Your task to perform on an android device: Open the stopwatch Image 0: 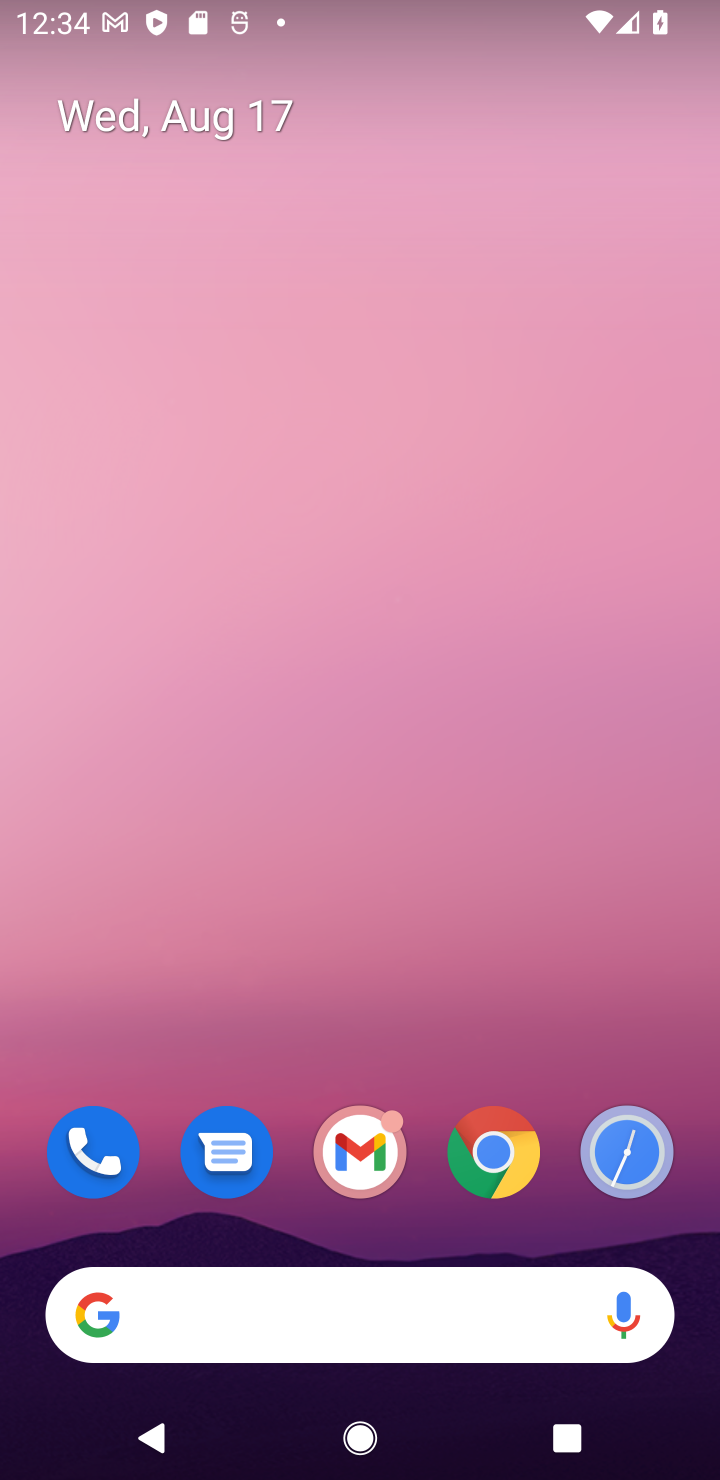
Step 0: drag from (558, 1219) to (310, 108)
Your task to perform on an android device: Open the stopwatch Image 1: 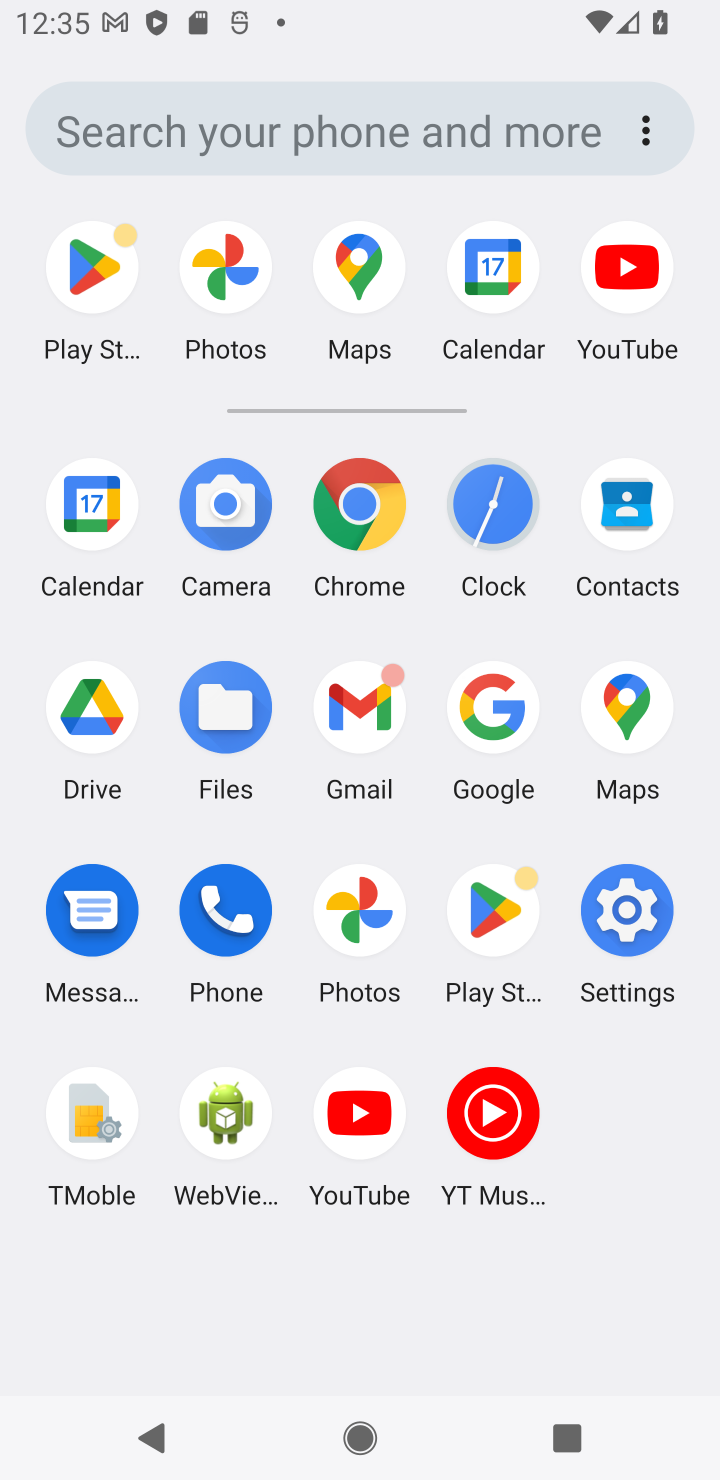
Step 1: click (486, 503)
Your task to perform on an android device: Open the stopwatch Image 2: 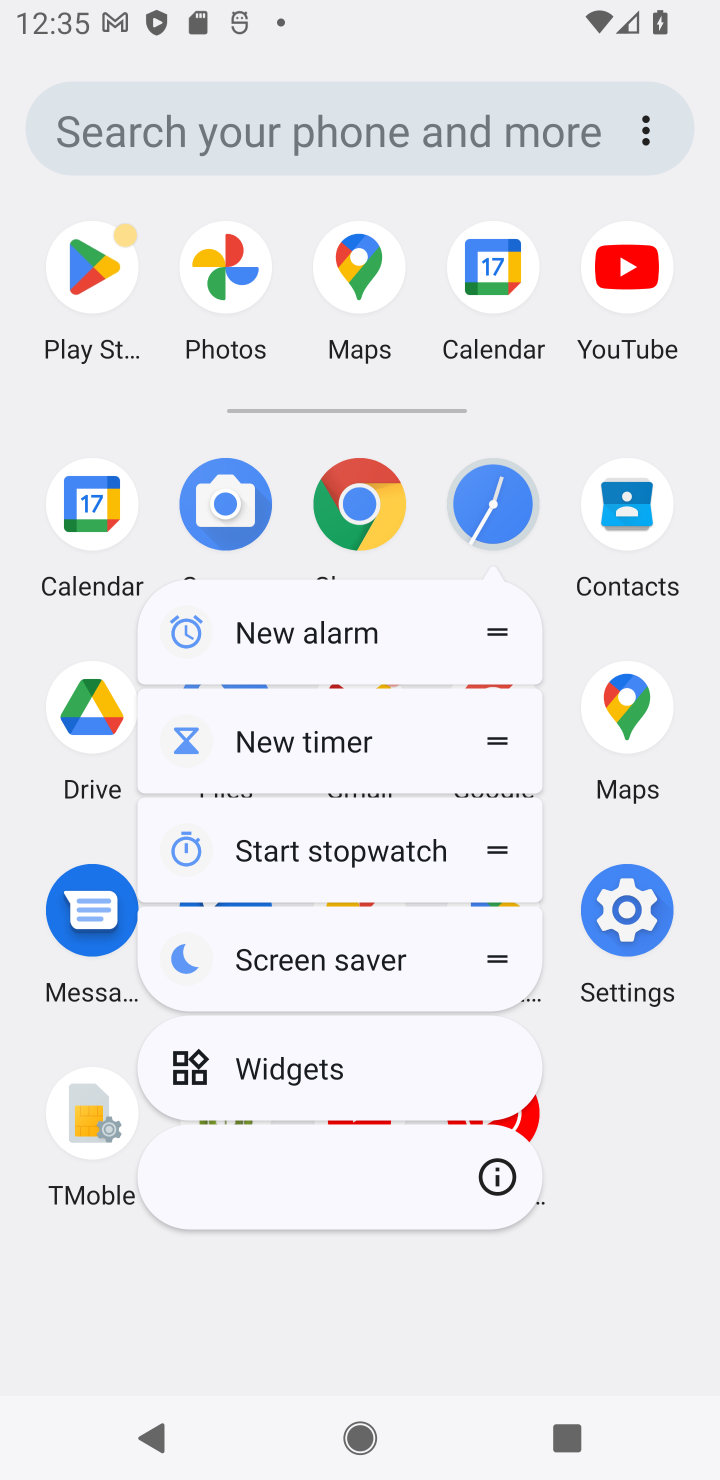
Step 2: click (486, 503)
Your task to perform on an android device: Open the stopwatch Image 3: 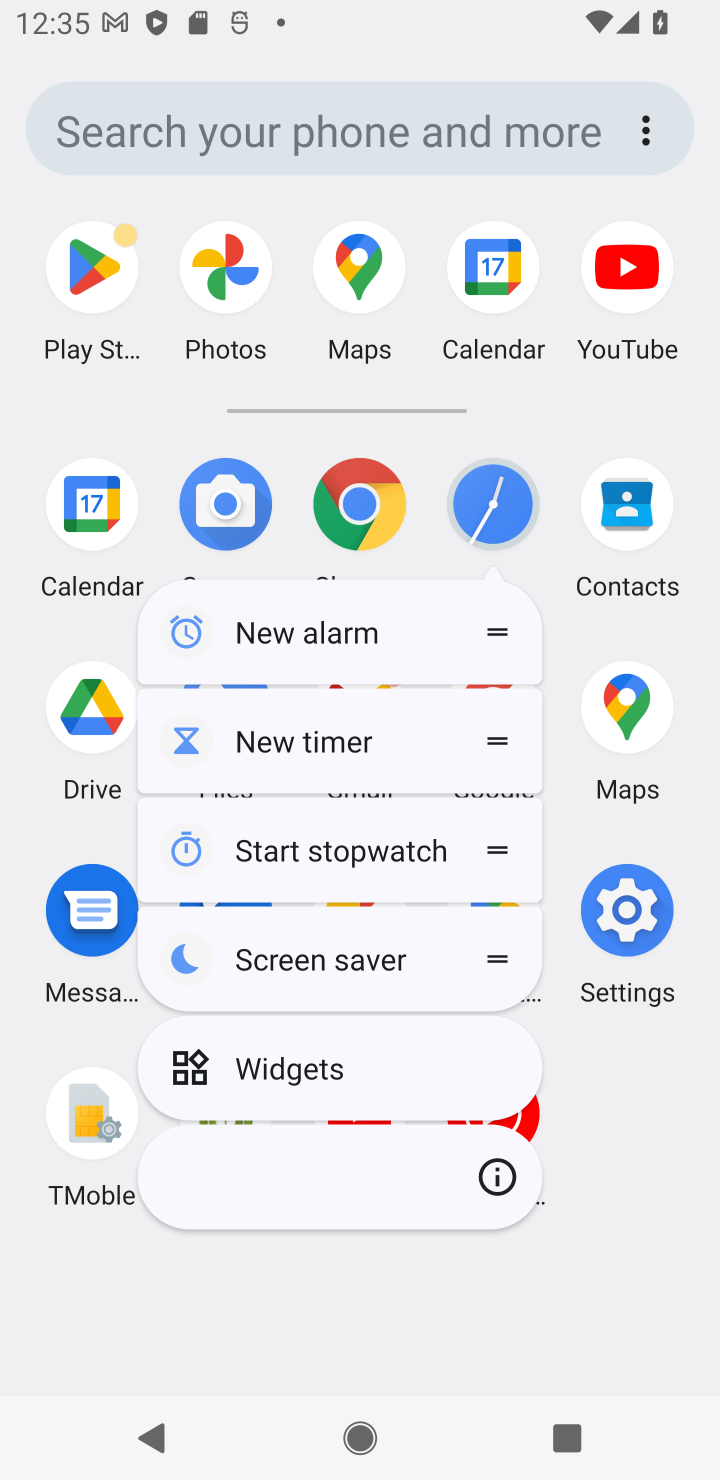
Step 3: click (486, 503)
Your task to perform on an android device: Open the stopwatch Image 4: 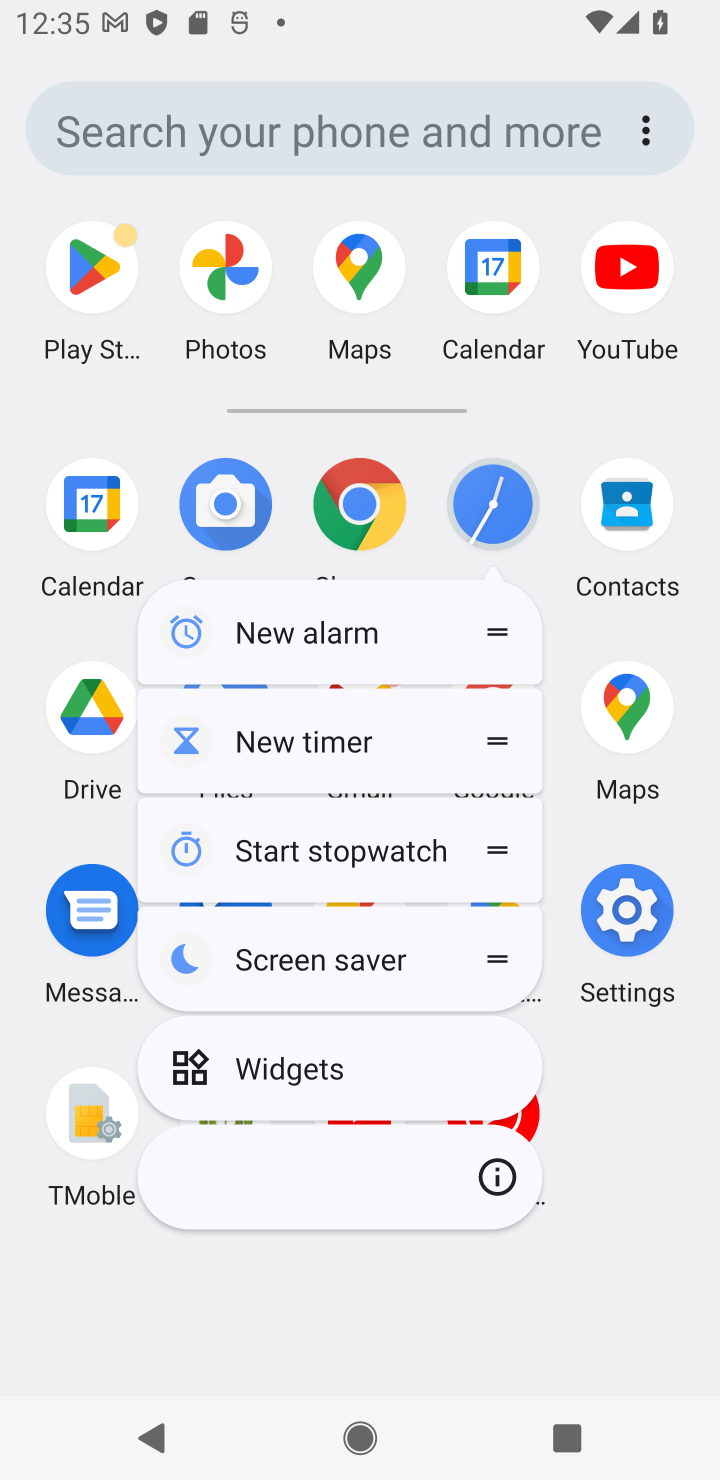
Step 4: click (486, 503)
Your task to perform on an android device: Open the stopwatch Image 5: 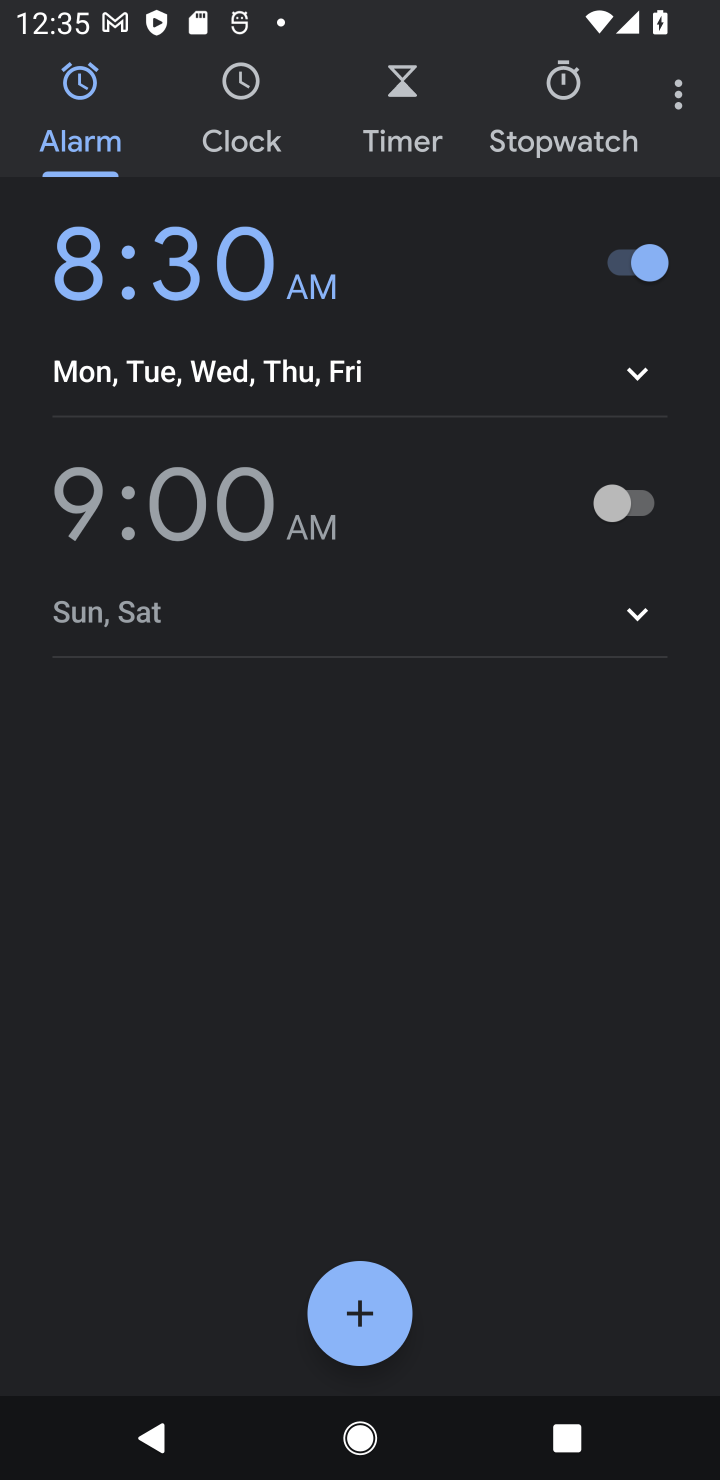
Step 5: click (563, 92)
Your task to perform on an android device: Open the stopwatch Image 6: 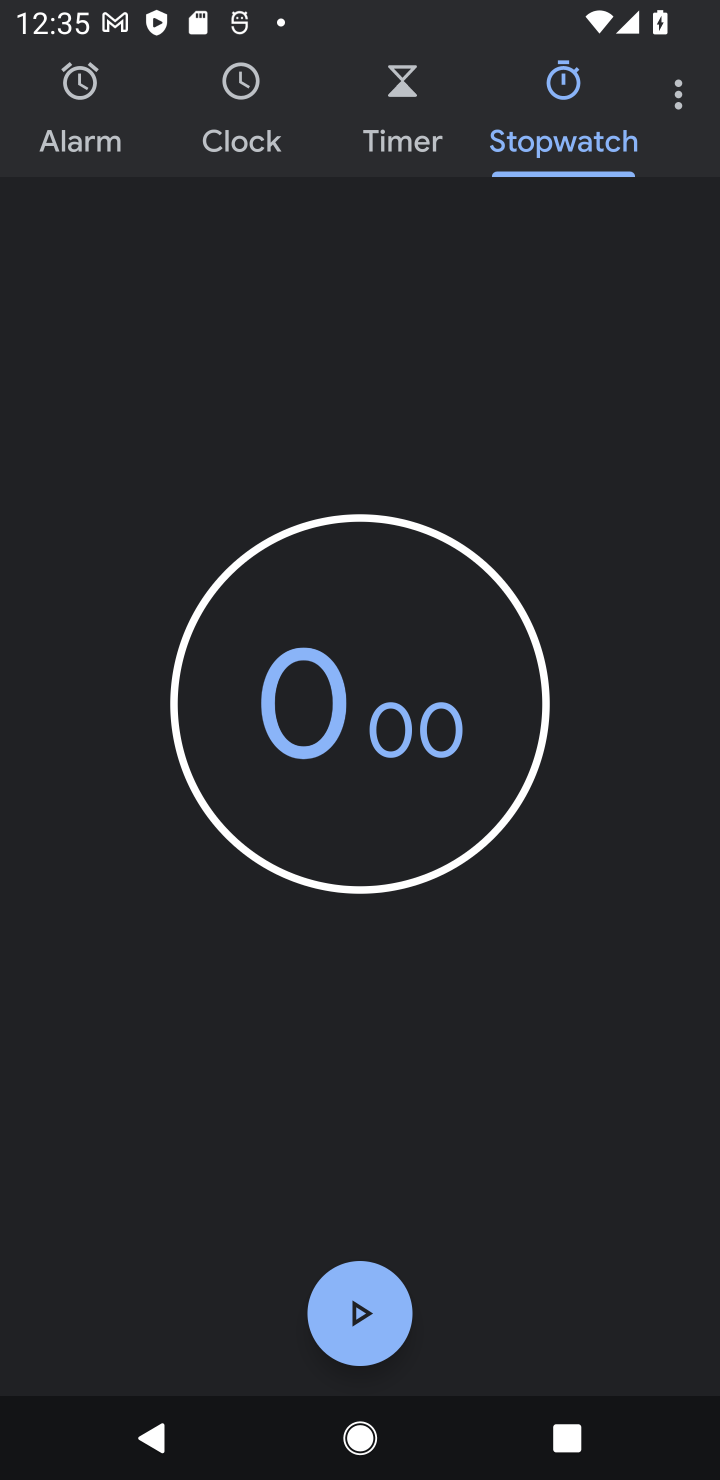
Step 6: task complete